Your task to perform on an android device: toggle notifications settings in the gmail app Image 0: 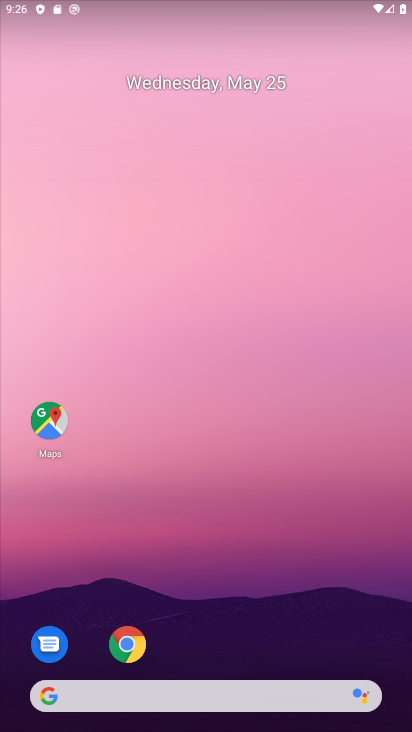
Step 0: drag from (292, 661) to (301, 6)
Your task to perform on an android device: toggle notifications settings in the gmail app Image 1: 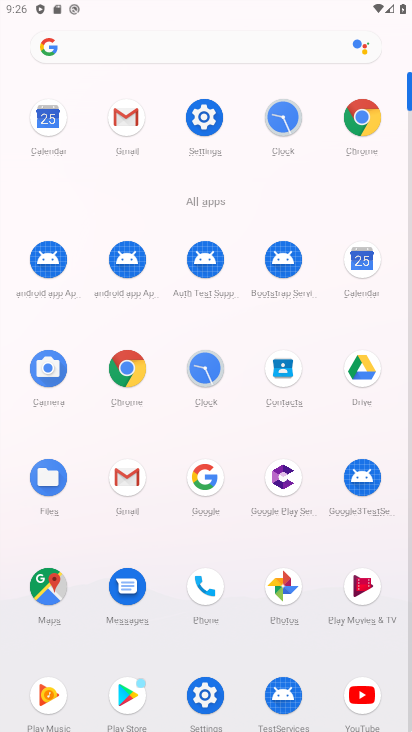
Step 1: click (127, 116)
Your task to perform on an android device: toggle notifications settings in the gmail app Image 2: 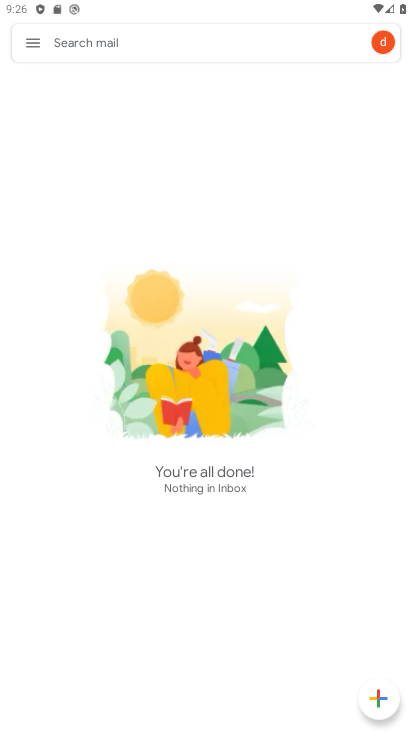
Step 2: click (22, 39)
Your task to perform on an android device: toggle notifications settings in the gmail app Image 3: 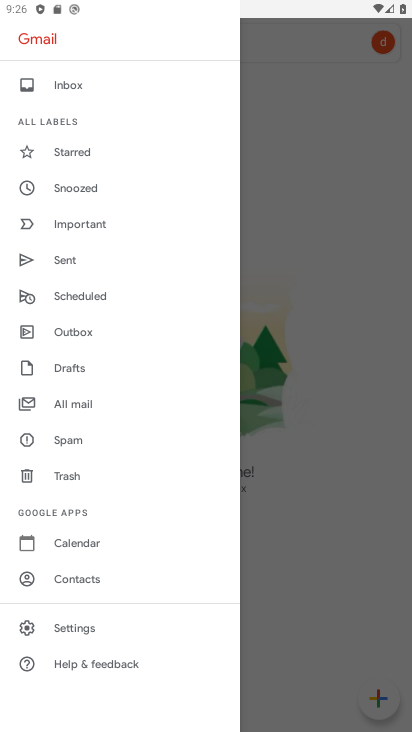
Step 3: click (90, 632)
Your task to perform on an android device: toggle notifications settings in the gmail app Image 4: 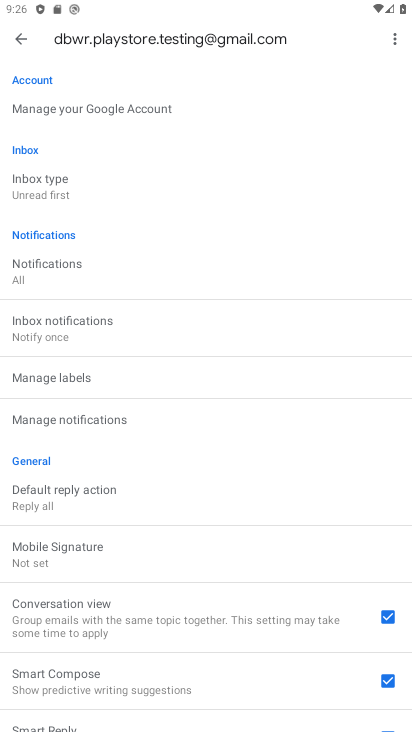
Step 4: click (24, 38)
Your task to perform on an android device: toggle notifications settings in the gmail app Image 5: 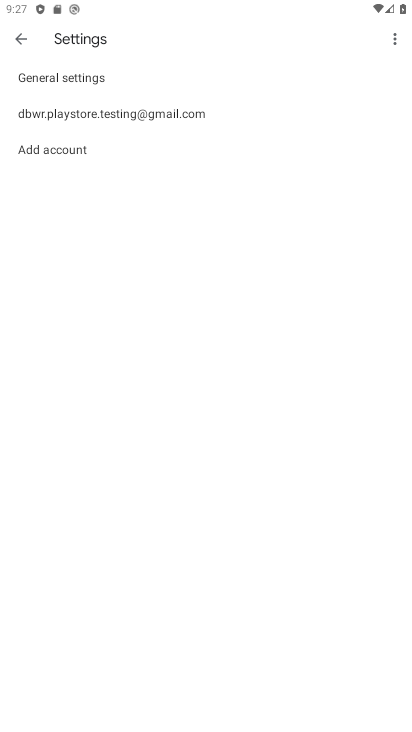
Step 5: click (63, 69)
Your task to perform on an android device: toggle notifications settings in the gmail app Image 6: 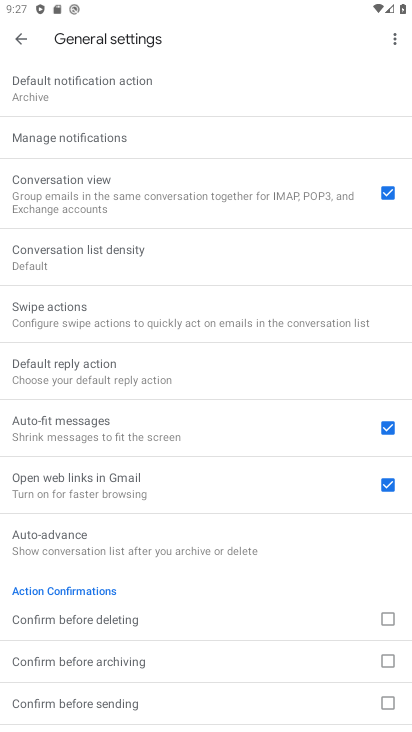
Step 6: click (71, 136)
Your task to perform on an android device: toggle notifications settings in the gmail app Image 7: 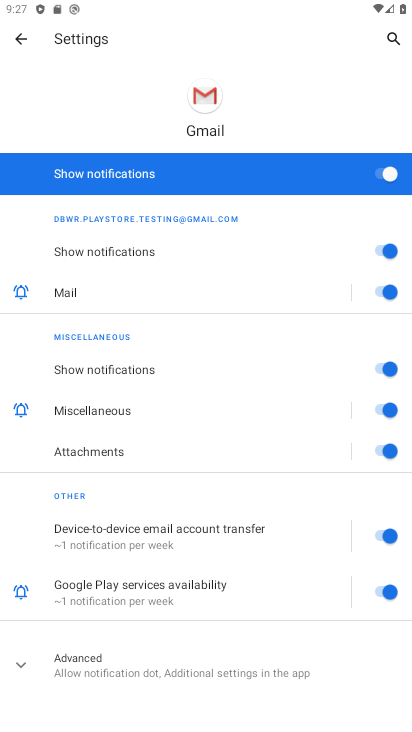
Step 7: click (386, 181)
Your task to perform on an android device: toggle notifications settings in the gmail app Image 8: 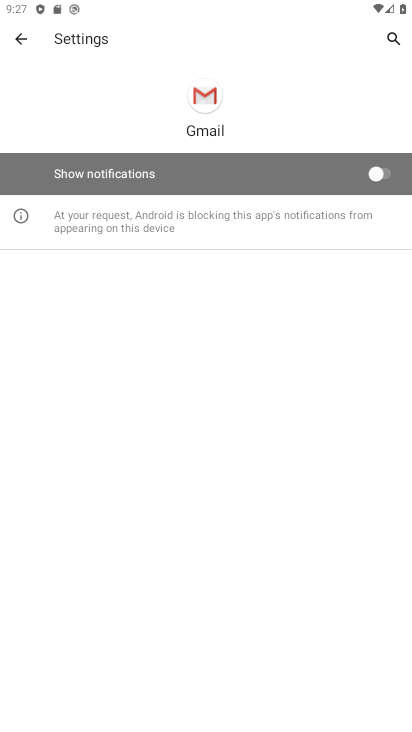
Step 8: task complete